Your task to perform on an android device: turn on wifi Image 0: 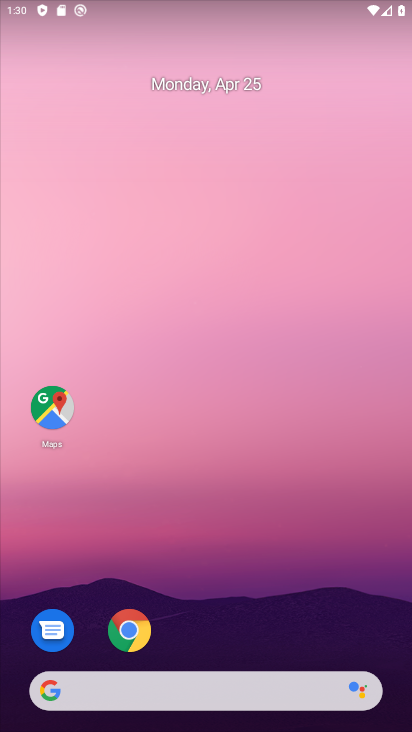
Step 0: drag from (317, 608) to (340, 86)
Your task to perform on an android device: turn on wifi Image 1: 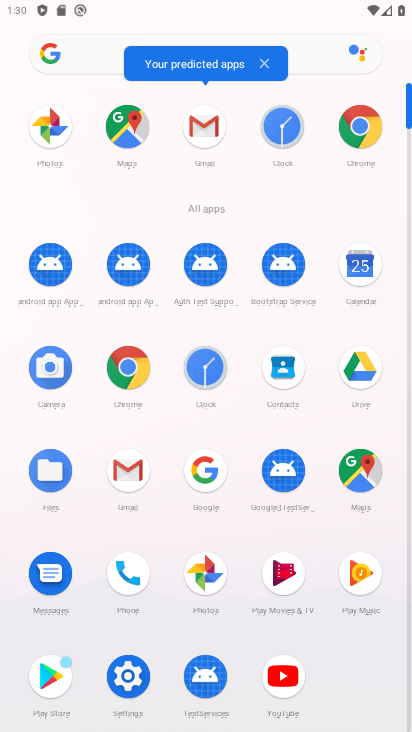
Step 1: drag from (404, 571) to (411, 234)
Your task to perform on an android device: turn on wifi Image 2: 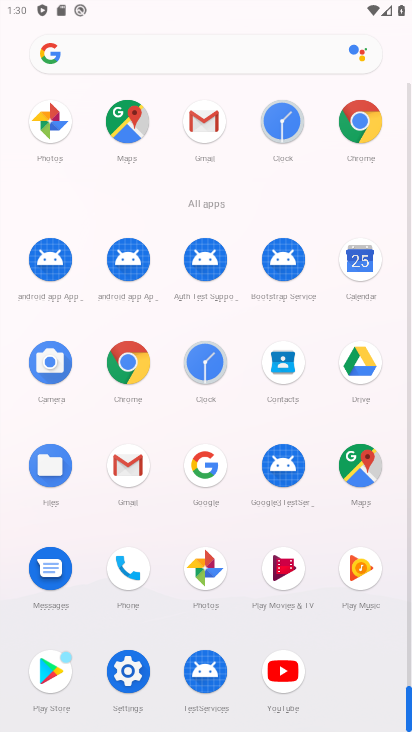
Step 2: click (121, 676)
Your task to perform on an android device: turn on wifi Image 3: 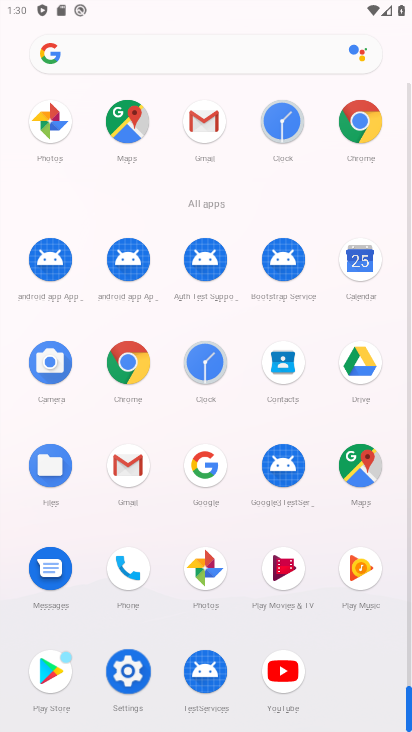
Step 3: click (124, 675)
Your task to perform on an android device: turn on wifi Image 4: 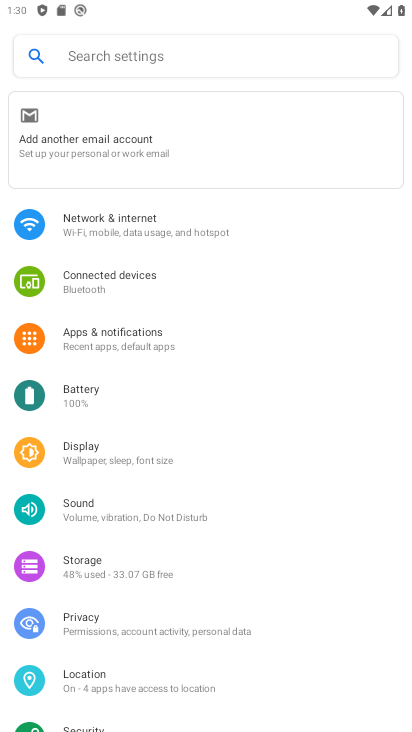
Step 4: click (133, 237)
Your task to perform on an android device: turn on wifi Image 5: 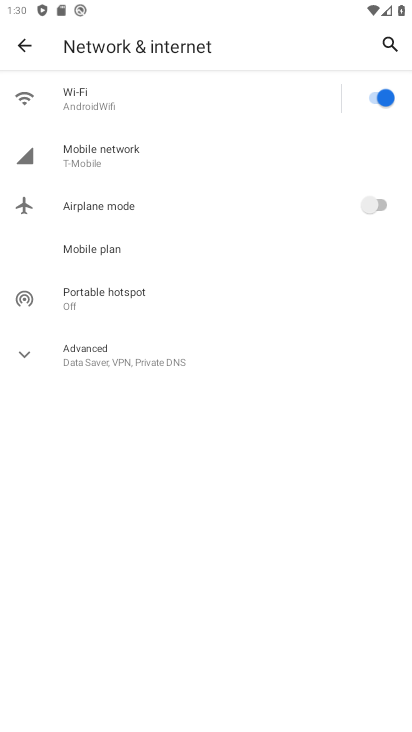
Step 5: task complete